Your task to perform on an android device: Open Wikipedia Image 0: 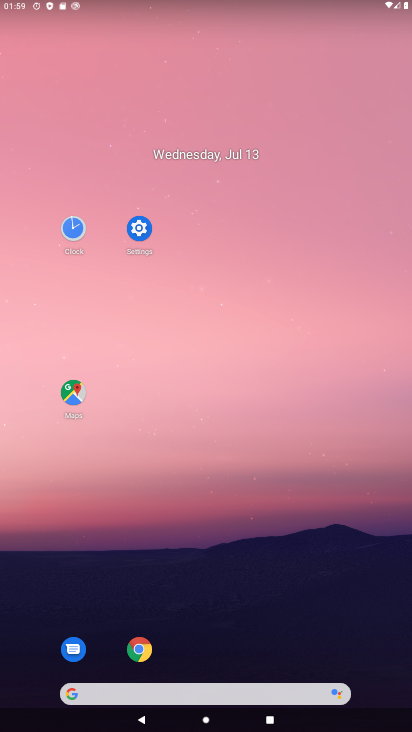
Step 0: click (148, 647)
Your task to perform on an android device: Open Wikipedia Image 1: 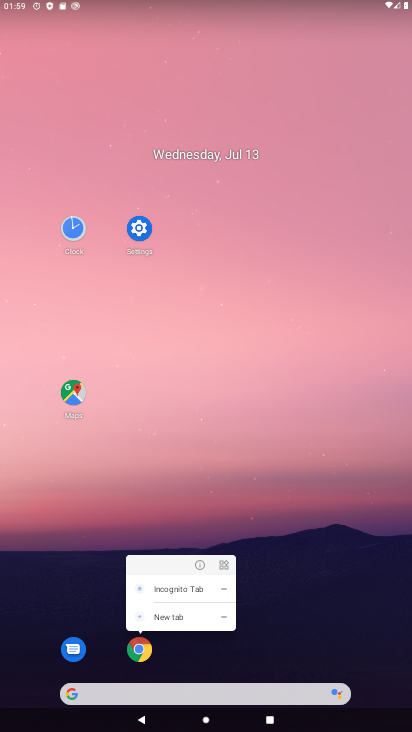
Step 1: click (149, 647)
Your task to perform on an android device: Open Wikipedia Image 2: 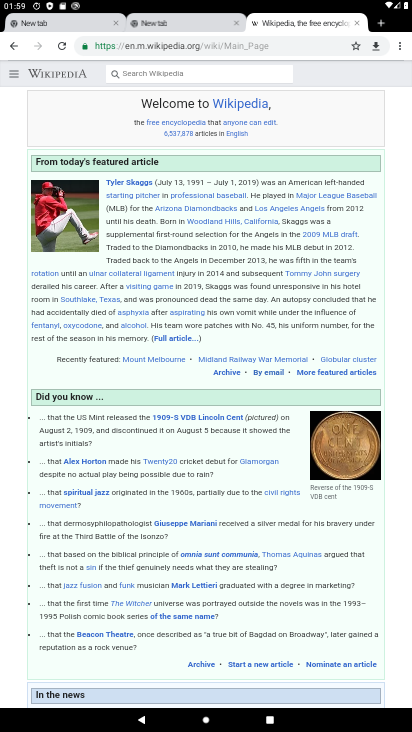
Step 2: task complete